Your task to perform on an android device: Open the Play Movies app and select the watchlist tab. Image 0: 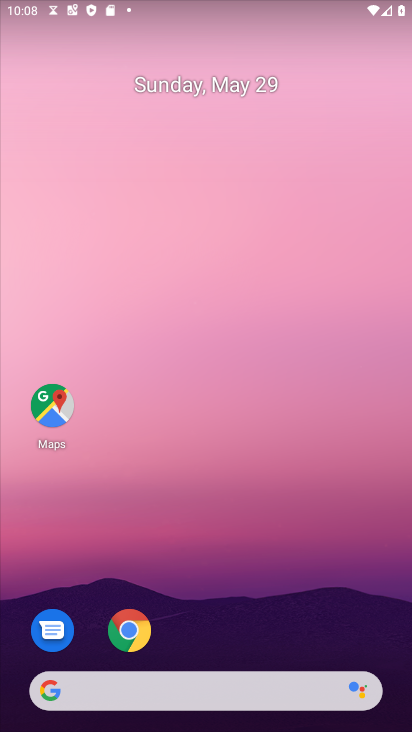
Step 0: drag from (239, 618) to (327, 101)
Your task to perform on an android device: Open the Play Movies app and select the watchlist tab. Image 1: 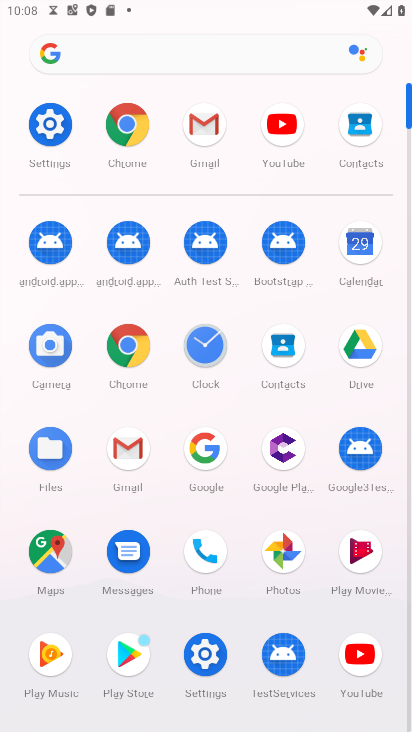
Step 1: click (357, 552)
Your task to perform on an android device: Open the Play Movies app and select the watchlist tab. Image 2: 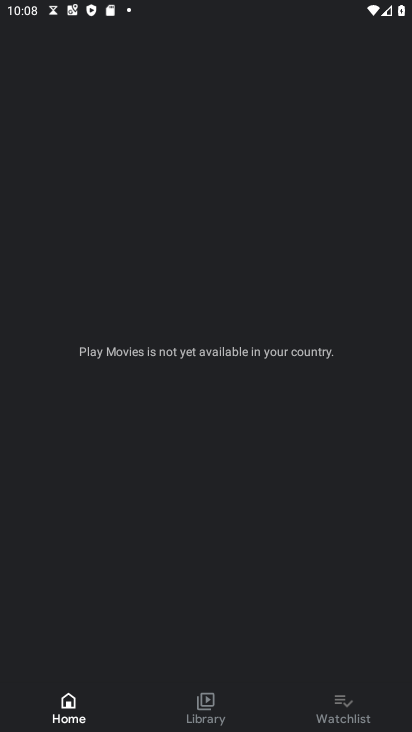
Step 2: click (349, 704)
Your task to perform on an android device: Open the Play Movies app and select the watchlist tab. Image 3: 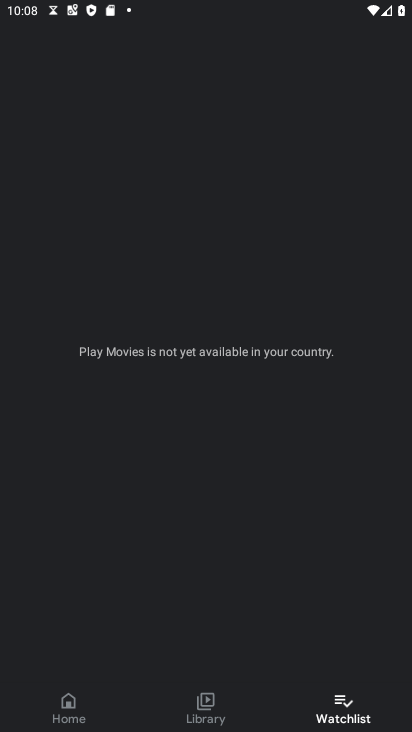
Step 3: task complete